Your task to perform on an android device: toggle sleep mode Image 0: 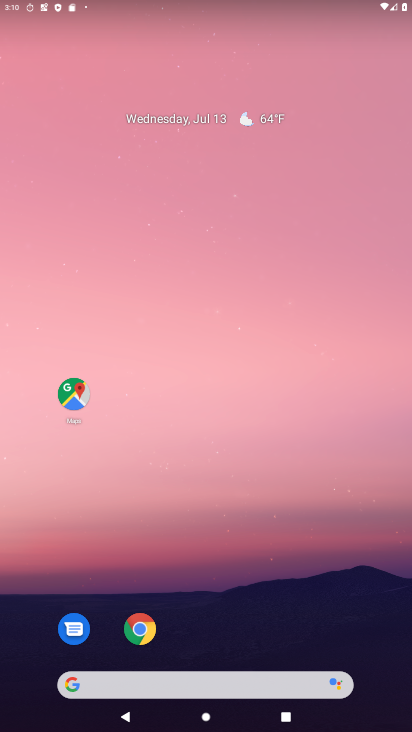
Step 0: drag from (222, 690) to (241, 43)
Your task to perform on an android device: toggle sleep mode Image 1: 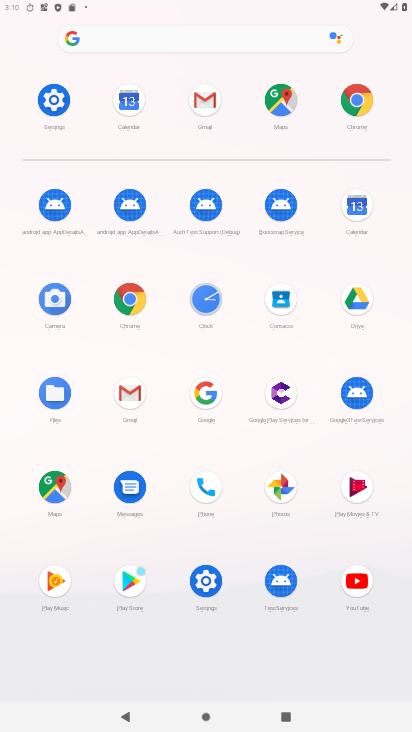
Step 1: click (36, 93)
Your task to perform on an android device: toggle sleep mode Image 2: 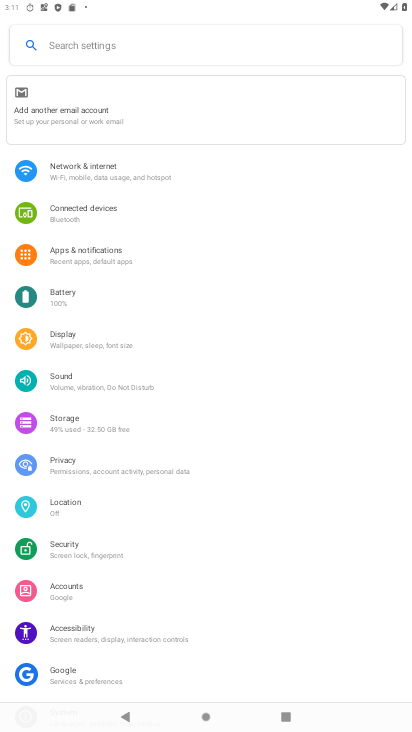
Step 2: click (106, 349)
Your task to perform on an android device: toggle sleep mode Image 3: 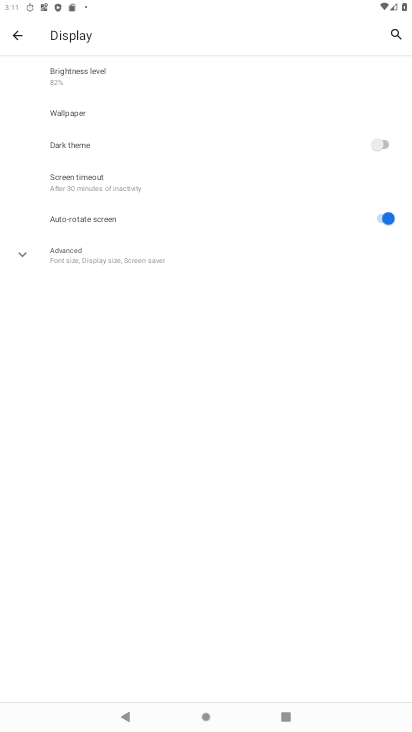
Step 3: task complete